Your task to perform on an android device: Set the phone to "Do not disturb". Image 0: 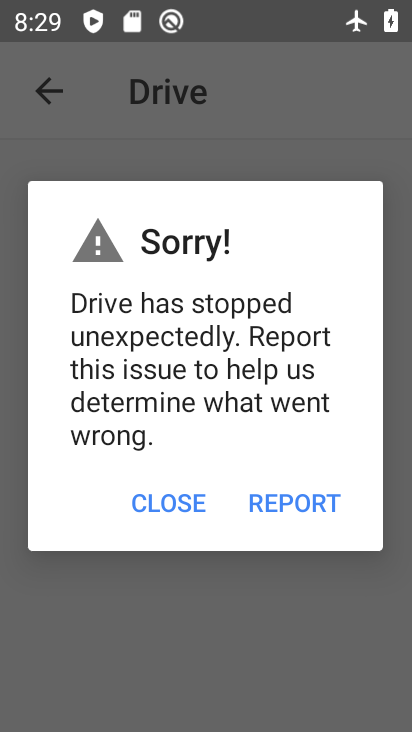
Step 0: press home button
Your task to perform on an android device: Set the phone to "Do not disturb". Image 1: 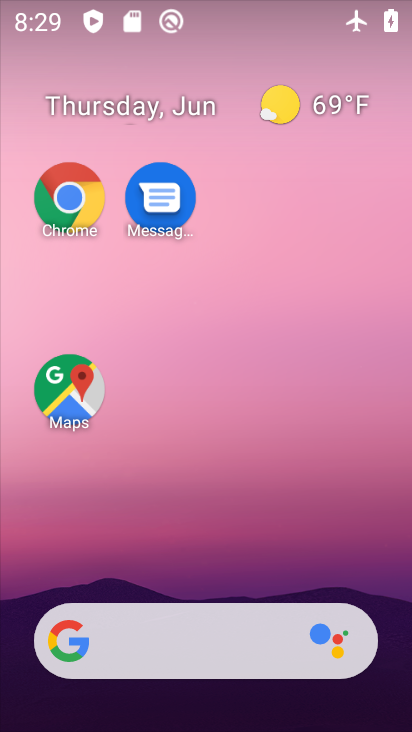
Step 1: drag from (224, 578) to (280, 137)
Your task to perform on an android device: Set the phone to "Do not disturb". Image 2: 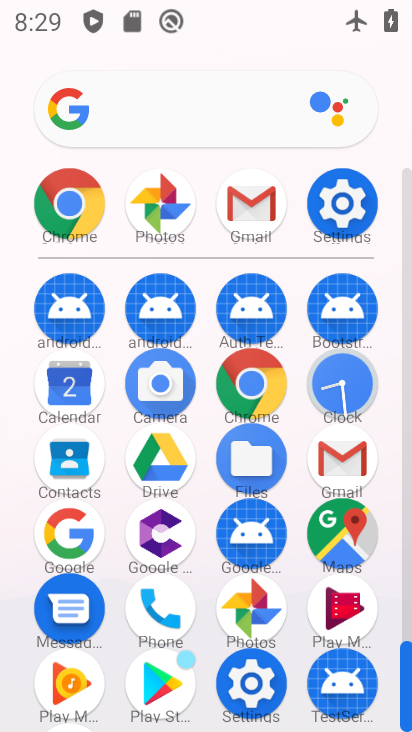
Step 2: drag from (237, 9) to (229, 462)
Your task to perform on an android device: Set the phone to "Do not disturb". Image 3: 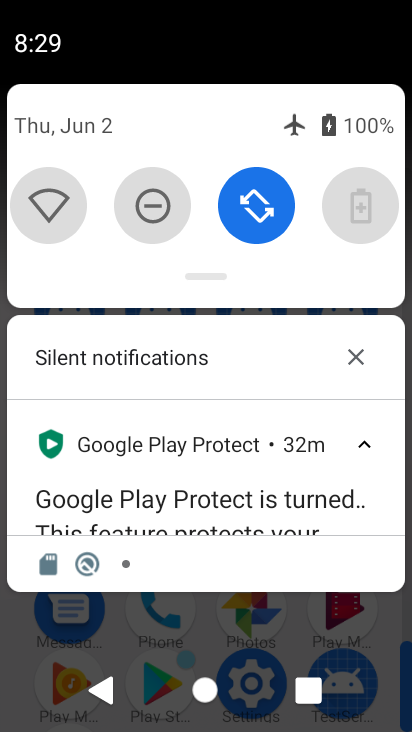
Step 3: click (147, 210)
Your task to perform on an android device: Set the phone to "Do not disturb". Image 4: 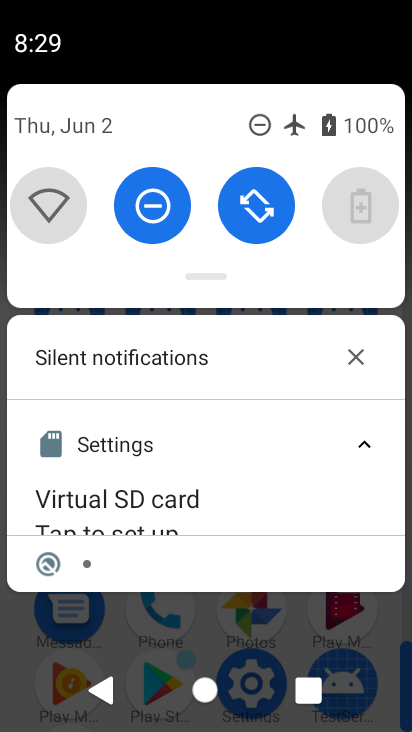
Step 4: task complete